Your task to perform on an android device: toggle pop-ups in chrome Image 0: 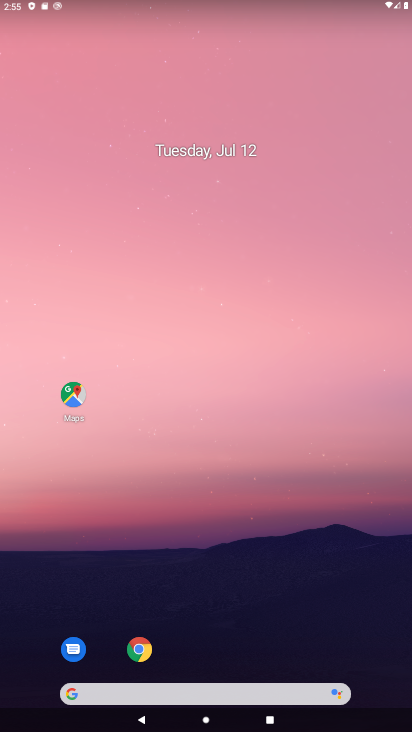
Step 0: click (138, 657)
Your task to perform on an android device: toggle pop-ups in chrome Image 1: 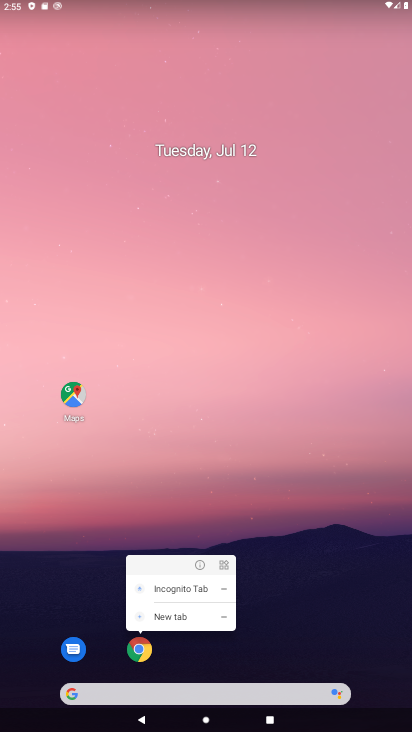
Step 1: click (138, 657)
Your task to perform on an android device: toggle pop-ups in chrome Image 2: 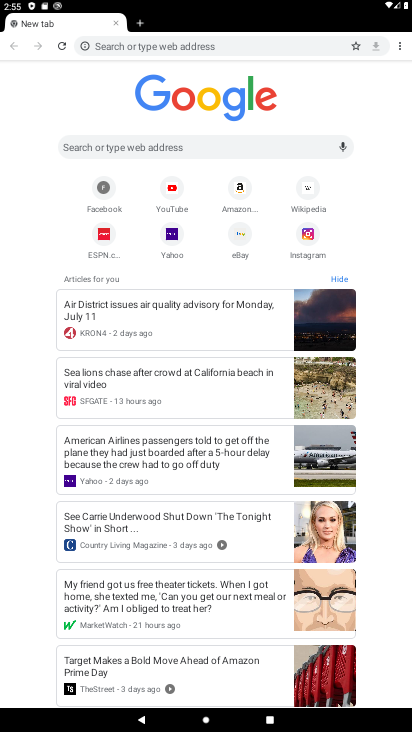
Step 2: drag from (400, 47) to (322, 213)
Your task to perform on an android device: toggle pop-ups in chrome Image 3: 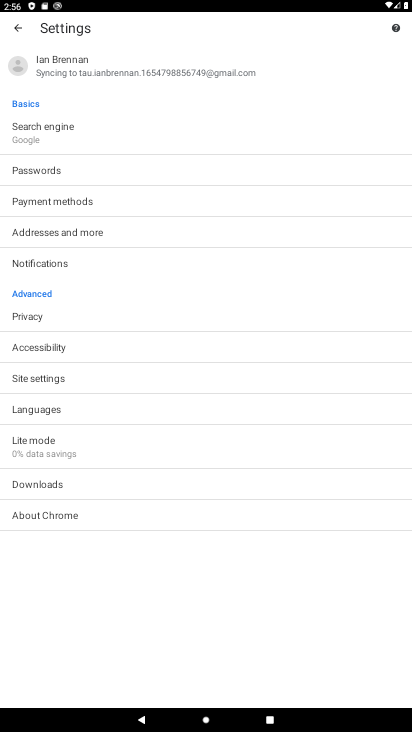
Step 3: click (75, 378)
Your task to perform on an android device: toggle pop-ups in chrome Image 4: 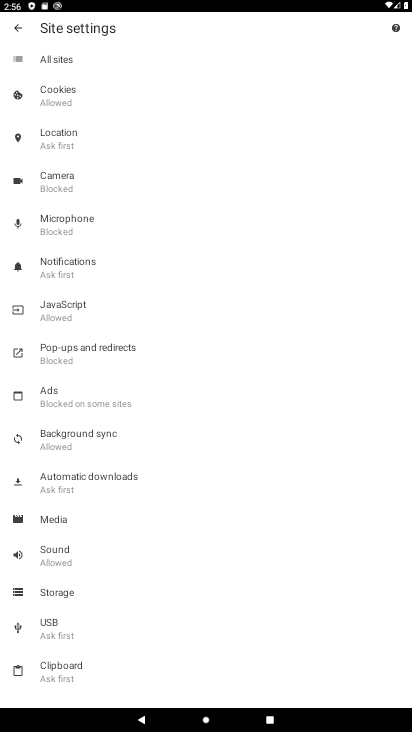
Step 4: click (81, 353)
Your task to perform on an android device: toggle pop-ups in chrome Image 5: 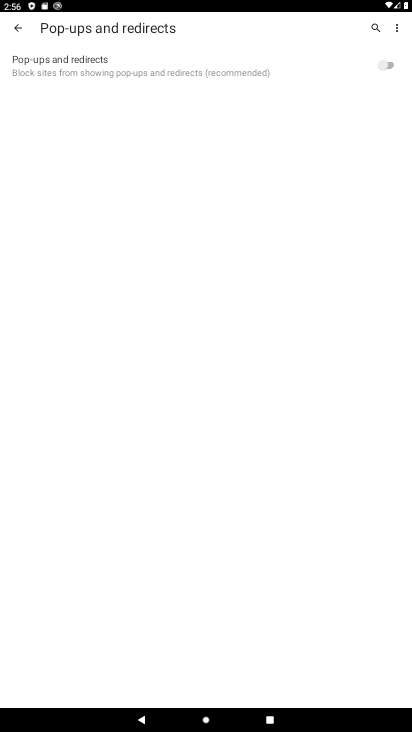
Step 5: click (382, 59)
Your task to perform on an android device: toggle pop-ups in chrome Image 6: 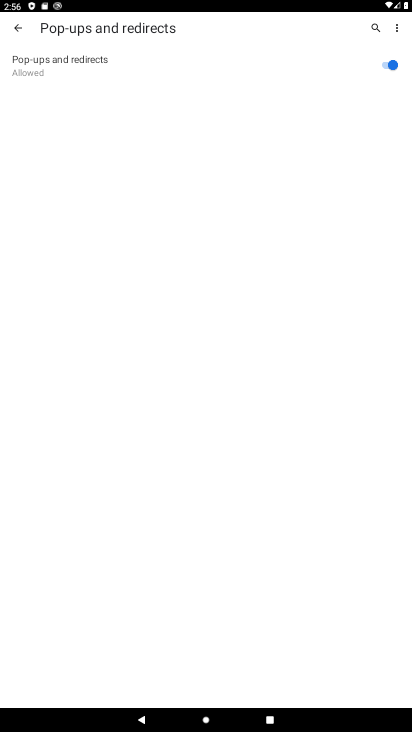
Step 6: task complete